Your task to perform on an android device: open chrome privacy settings Image 0: 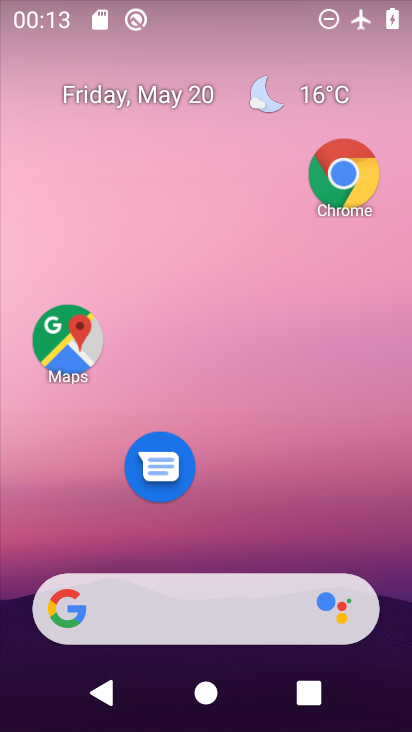
Step 0: drag from (272, 508) to (251, 216)
Your task to perform on an android device: open chrome privacy settings Image 1: 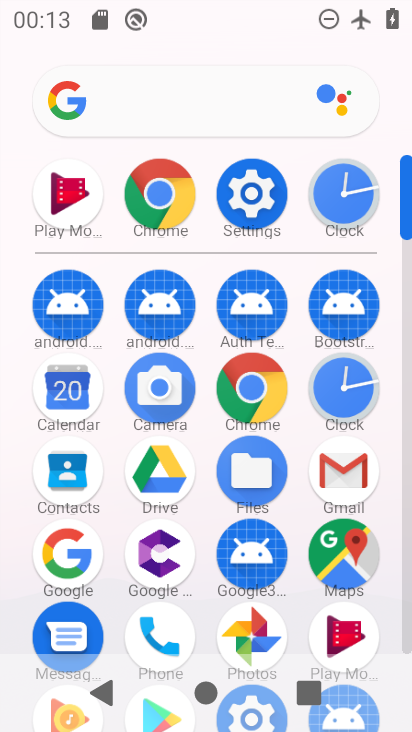
Step 1: click (144, 201)
Your task to perform on an android device: open chrome privacy settings Image 2: 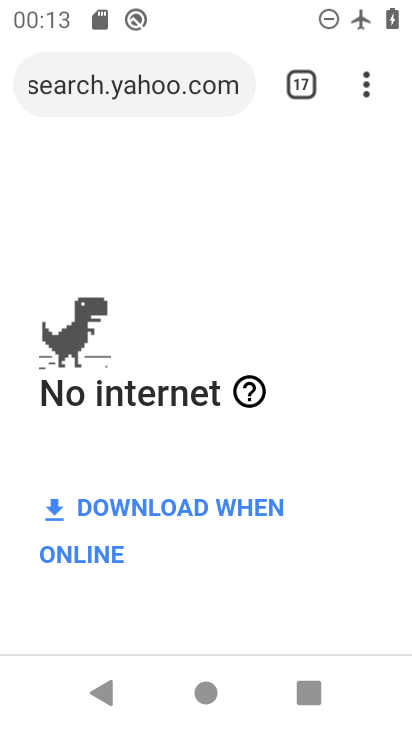
Step 2: click (366, 69)
Your task to perform on an android device: open chrome privacy settings Image 3: 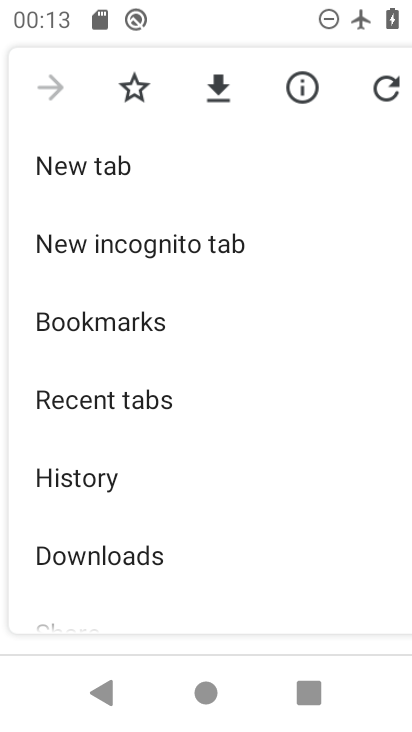
Step 3: drag from (175, 543) to (193, 209)
Your task to perform on an android device: open chrome privacy settings Image 4: 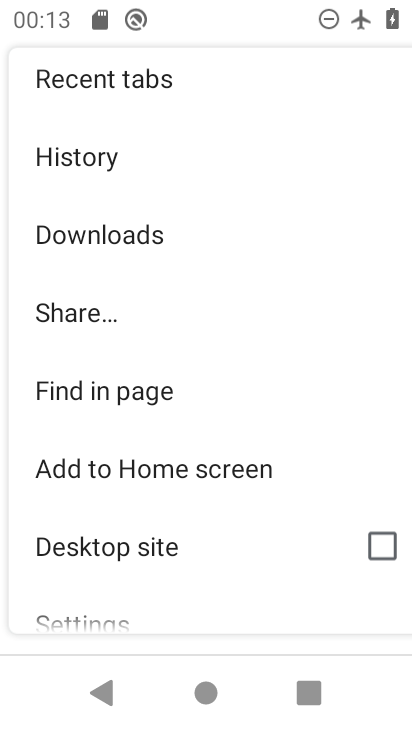
Step 4: drag from (168, 528) to (199, 205)
Your task to perform on an android device: open chrome privacy settings Image 5: 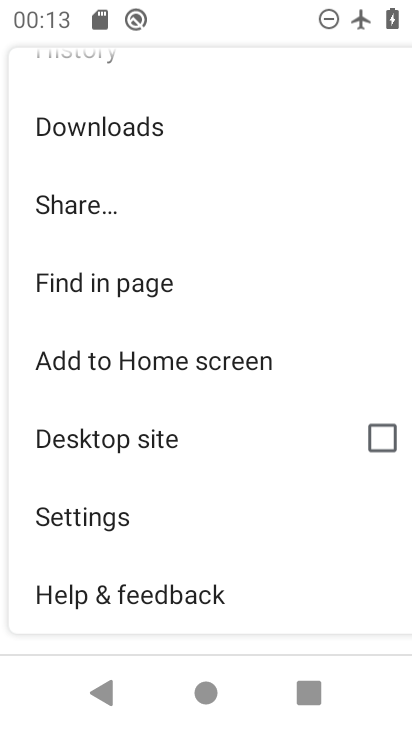
Step 5: click (116, 532)
Your task to perform on an android device: open chrome privacy settings Image 6: 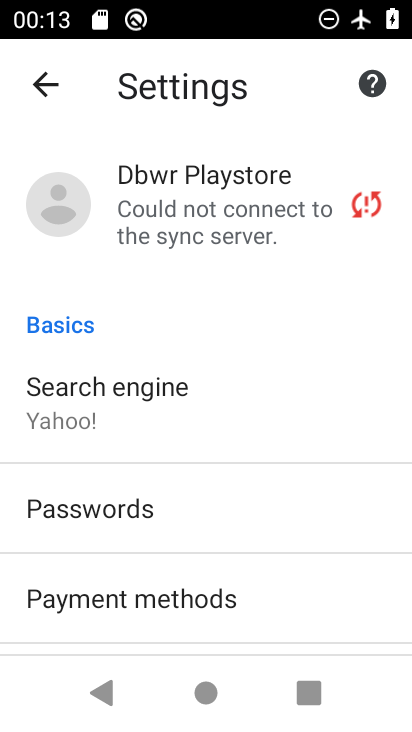
Step 6: drag from (205, 562) to (232, 259)
Your task to perform on an android device: open chrome privacy settings Image 7: 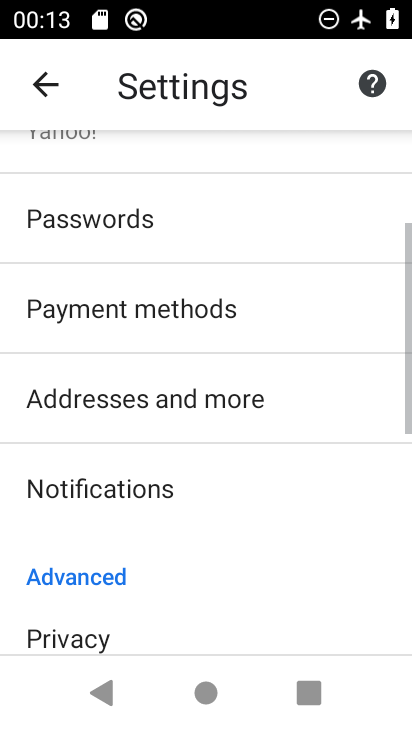
Step 7: click (220, 247)
Your task to perform on an android device: open chrome privacy settings Image 8: 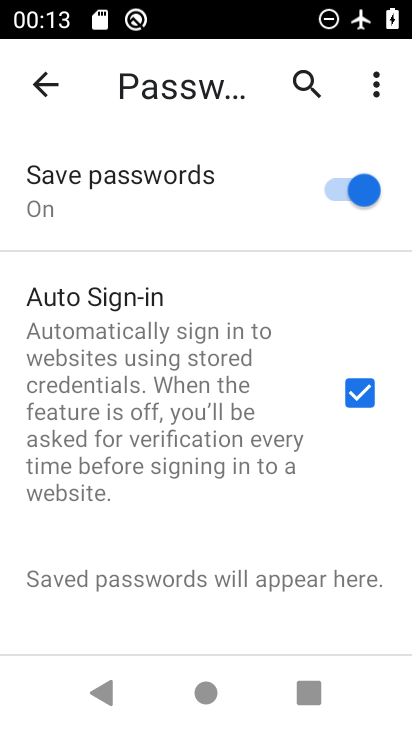
Step 8: click (97, 630)
Your task to perform on an android device: open chrome privacy settings Image 9: 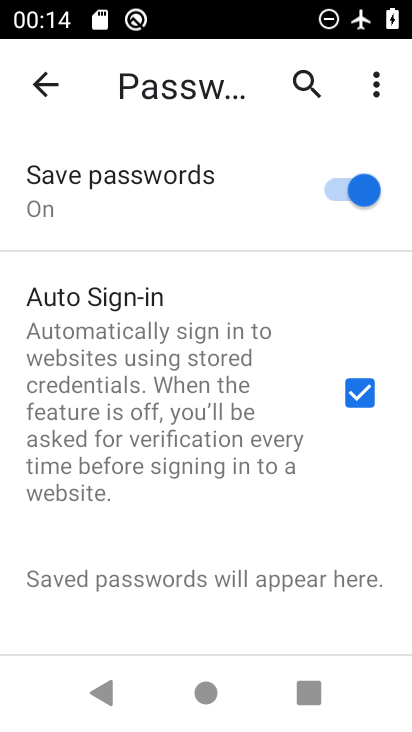
Step 9: click (63, 95)
Your task to perform on an android device: open chrome privacy settings Image 10: 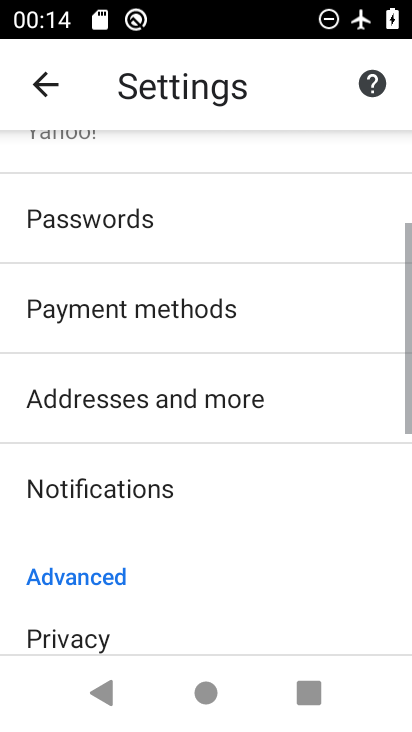
Step 10: click (160, 639)
Your task to perform on an android device: open chrome privacy settings Image 11: 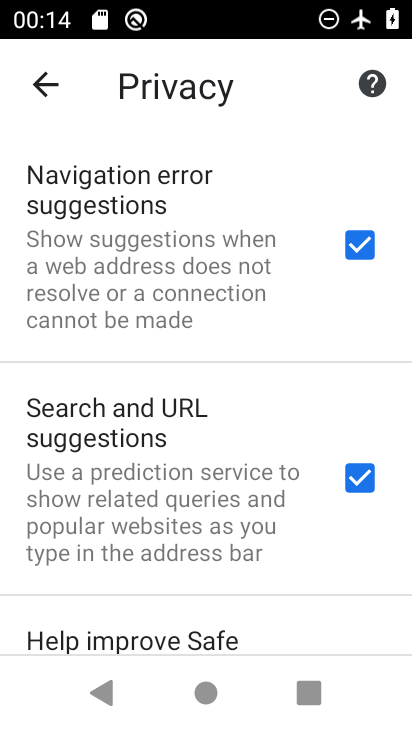
Step 11: task complete